Your task to perform on an android device: Check the settings for the Amazon Music app Image 0: 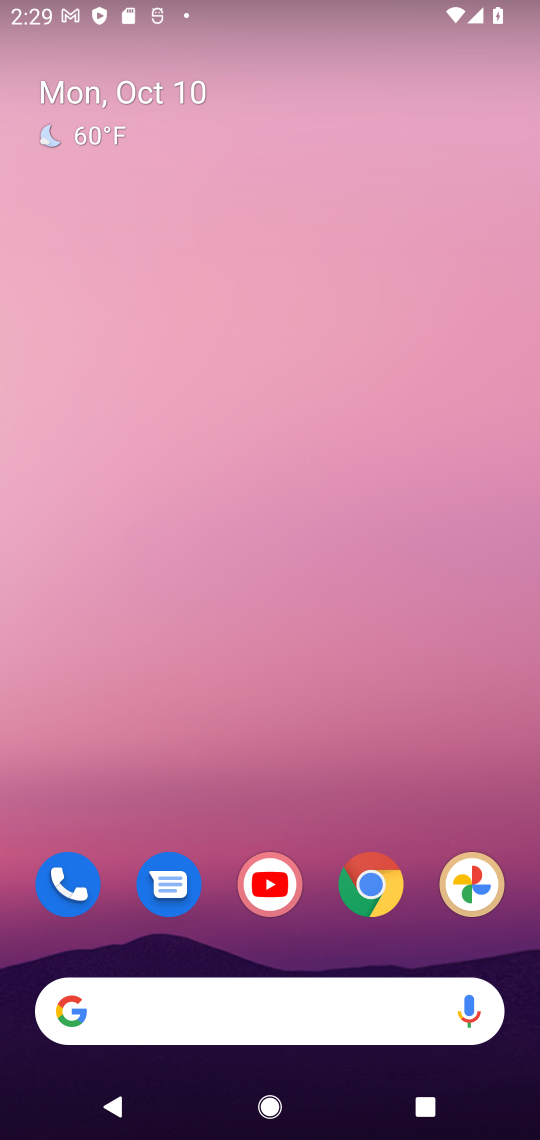
Step 0: drag from (312, 915) to (372, 150)
Your task to perform on an android device: Check the settings for the Amazon Music app Image 1: 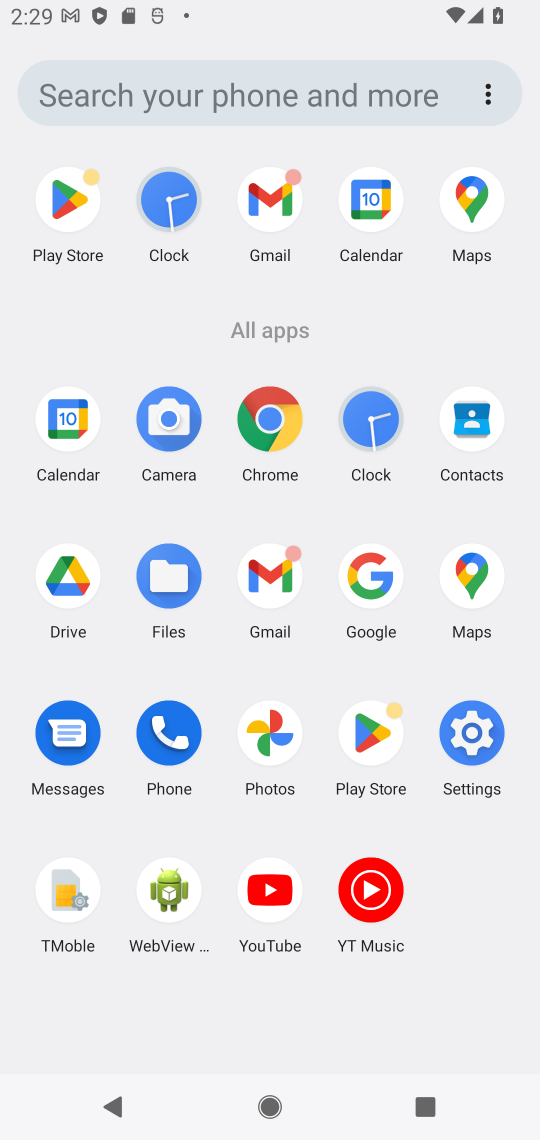
Step 1: task complete